Your task to perform on an android device: turn off wifi Image 0: 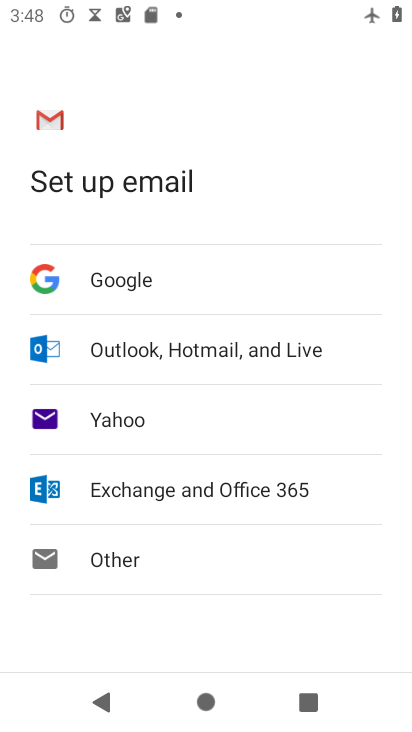
Step 0: press home button
Your task to perform on an android device: turn off wifi Image 1: 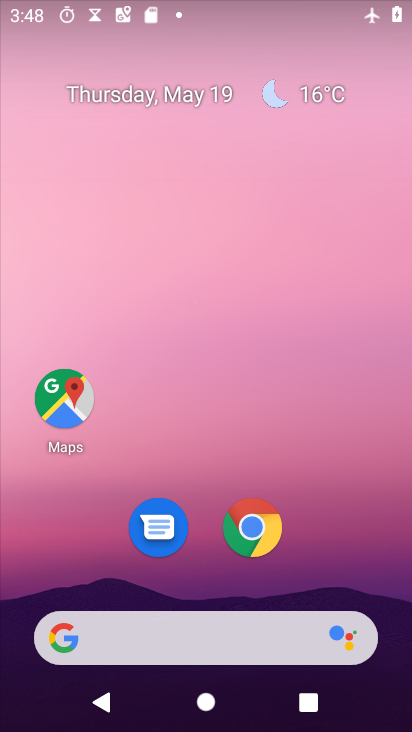
Step 1: drag from (333, 461) to (233, 41)
Your task to perform on an android device: turn off wifi Image 2: 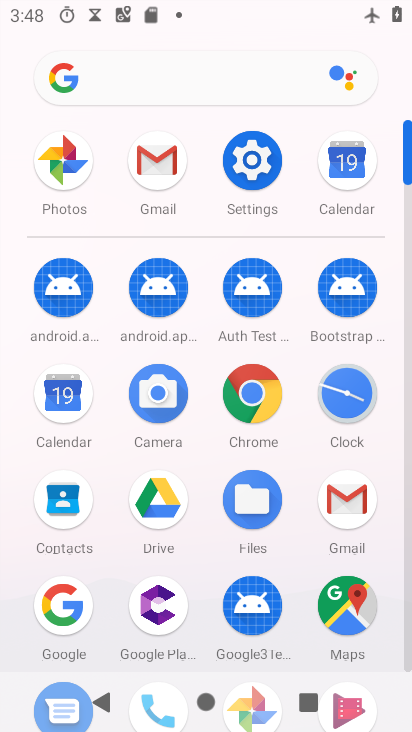
Step 2: click (237, 154)
Your task to perform on an android device: turn off wifi Image 3: 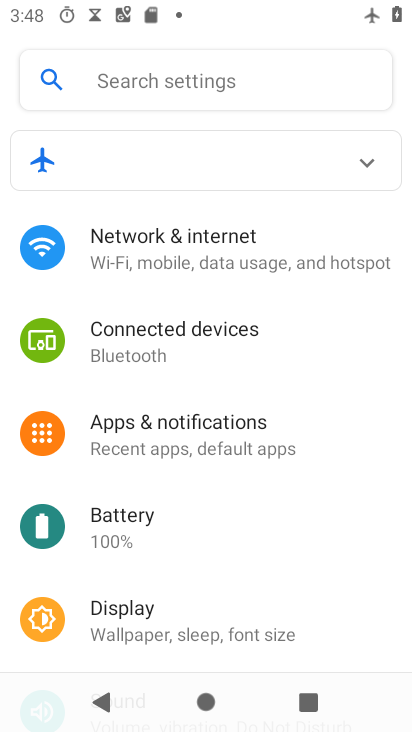
Step 3: click (242, 263)
Your task to perform on an android device: turn off wifi Image 4: 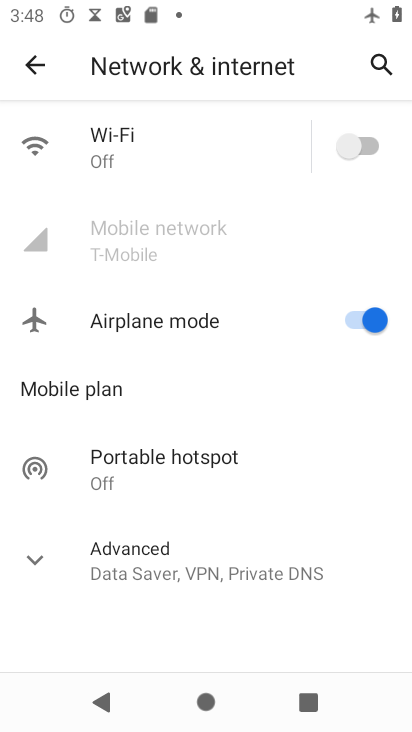
Step 4: task complete